Your task to perform on an android device: all mails in gmail Image 0: 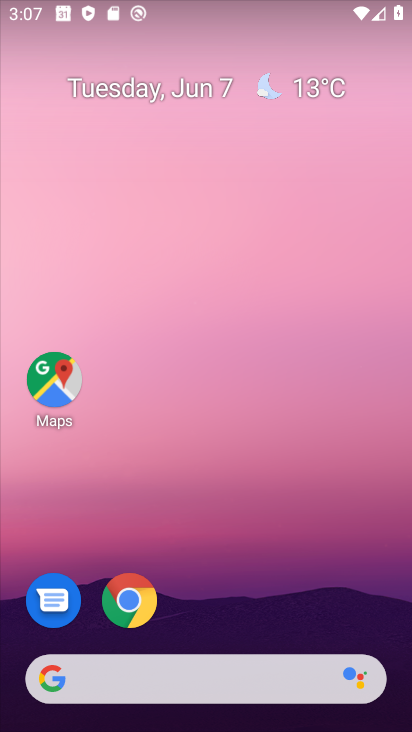
Step 0: drag from (228, 584) to (188, 196)
Your task to perform on an android device: all mails in gmail Image 1: 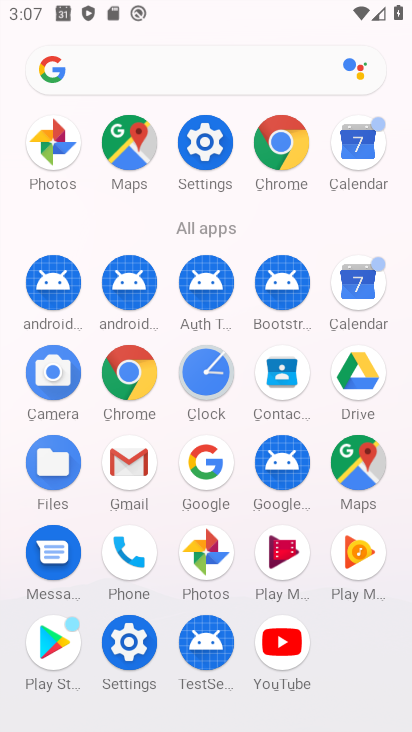
Step 1: click (134, 467)
Your task to perform on an android device: all mails in gmail Image 2: 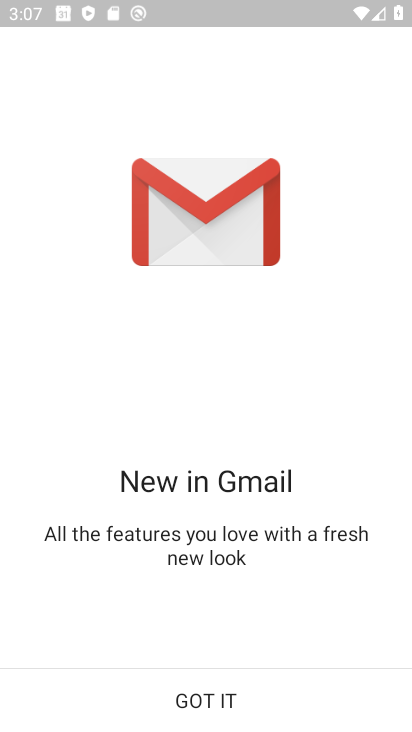
Step 2: click (213, 692)
Your task to perform on an android device: all mails in gmail Image 3: 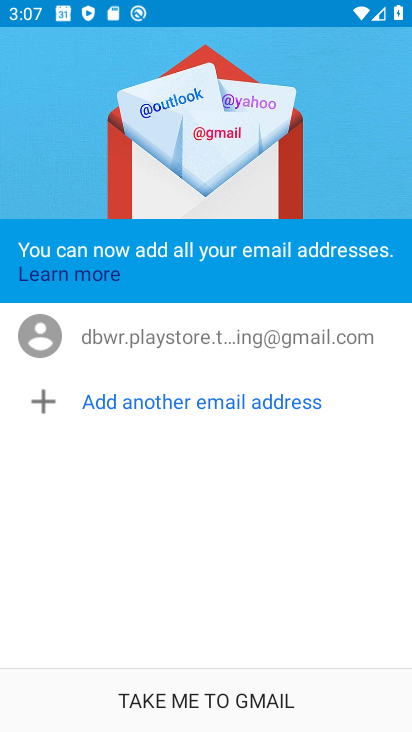
Step 3: click (211, 694)
Your task to perform on an android device: all mails in gmail Image 4: 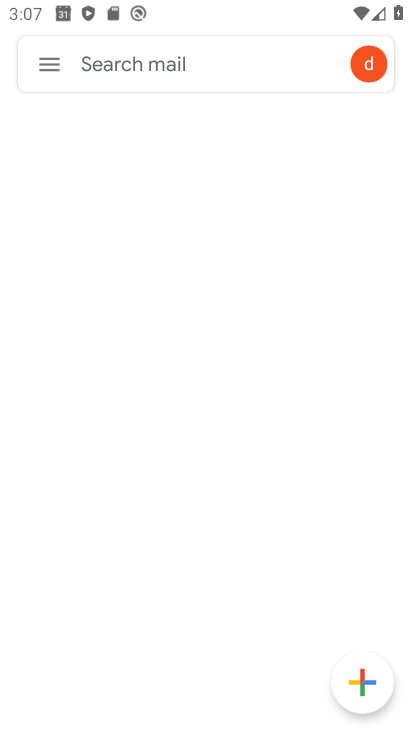
Step 4: click (40, 65)
Your task to perform on an android device: all mails in gmail Image 5: 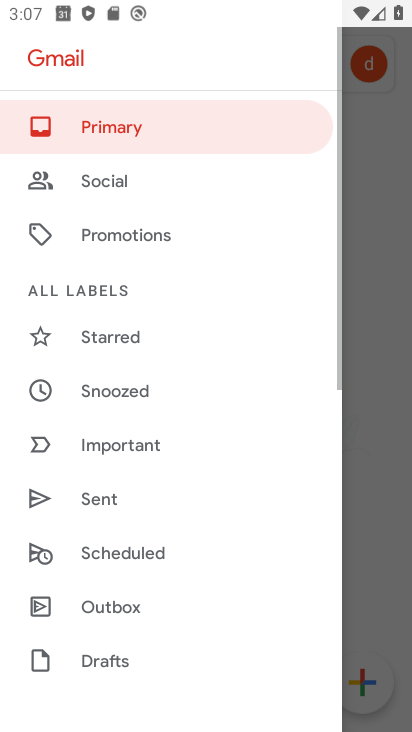
Step 5: drag from (170, 617) to (147, 238)
Your task to perform on an android device: all mails in gmail Image 6: 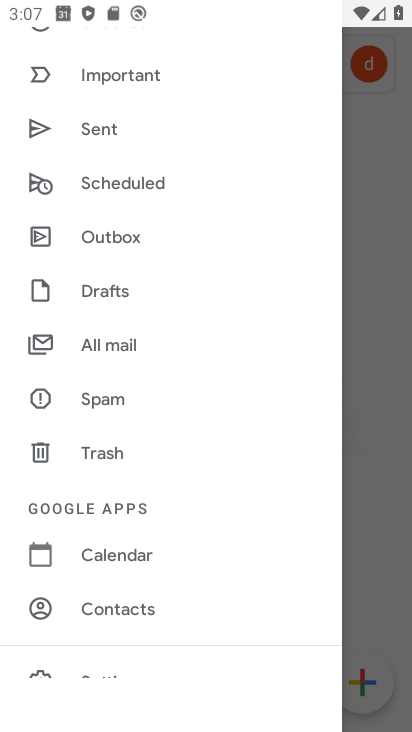
Step 6: click (129, 341)
Your task to perform on an android device: all mails in gmail Image 7: 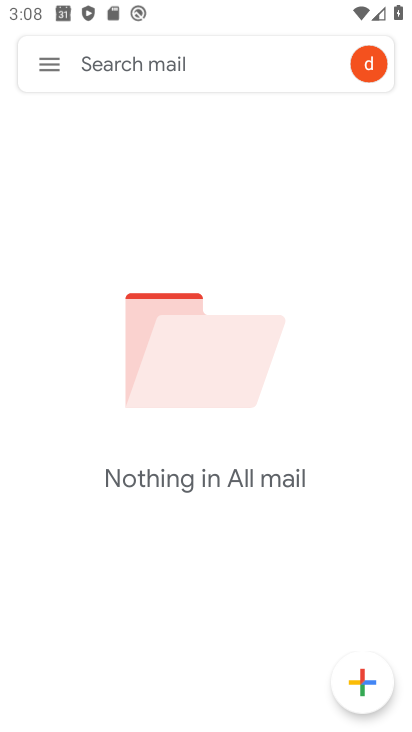
Step 7: task complete